Your task to perform on an android device: When is my next meeting? Image 0: 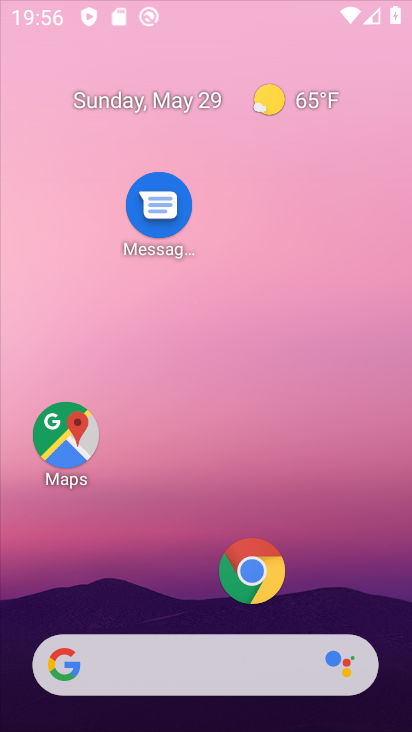
Step 0: click (179, 209)
Your task to perform on an android device: When is my next meeting? Image 1: 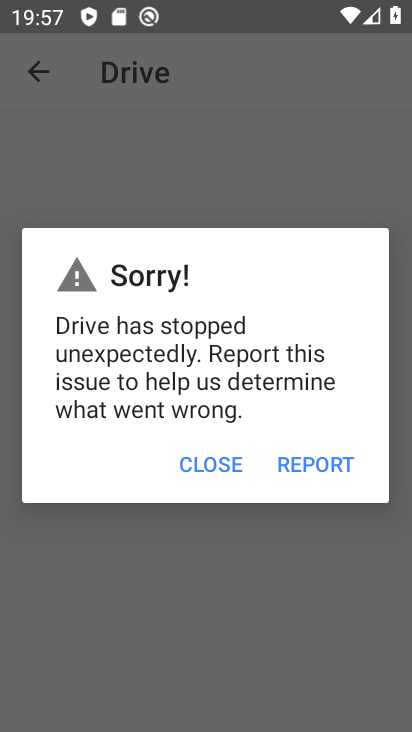
Step 1: drag from (196, 585) to (203, 528)
Your task to perform on an android device: When is my next meeting? Image 2: 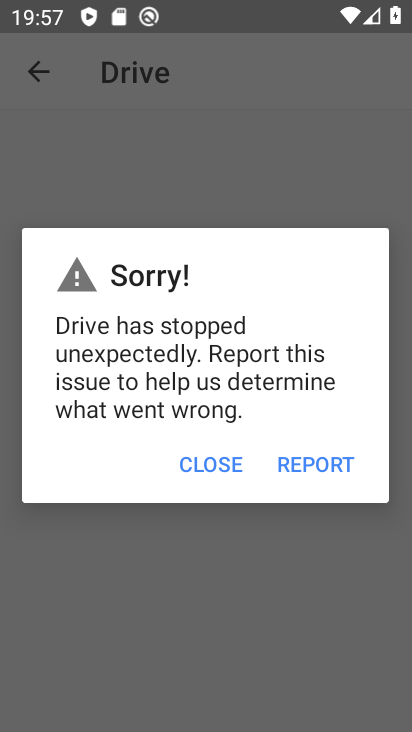
Step 2: press home button
Your task to perform on an android device: When is my next meeting? Image 3: 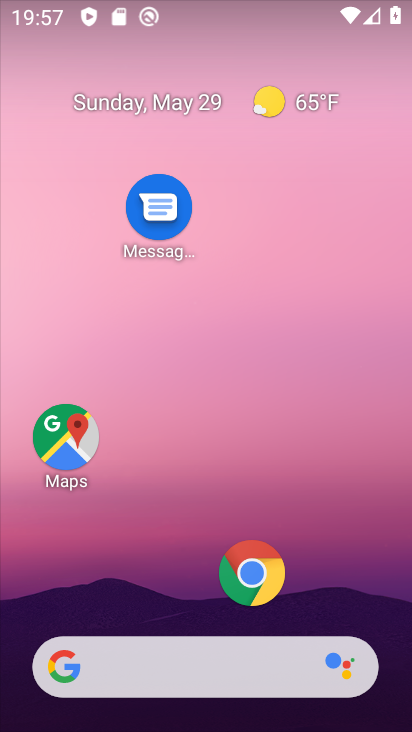
Step 3: drag from (195, 585) to (218, 241)
Your task to perform on an android device: When is my next meeting? Image 4: 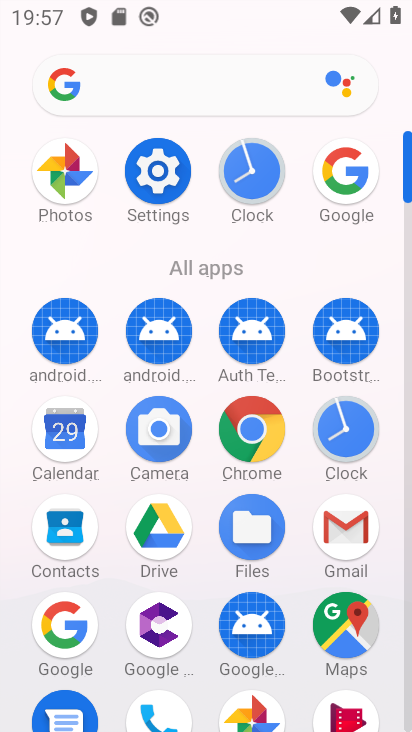
Step 4: click (60, 449)
Your task to perform on an android device: When is my next meeting? Image 5: 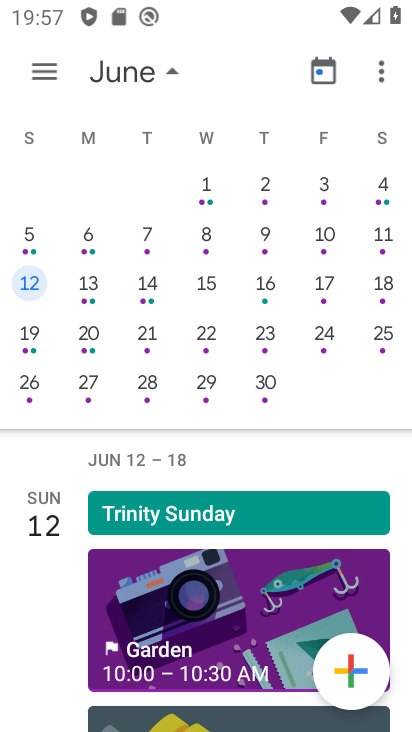
Step 5: drag from (37, 269) to (353, 298)
Your task to perform on an android device: When is my next meeting? Image 6: 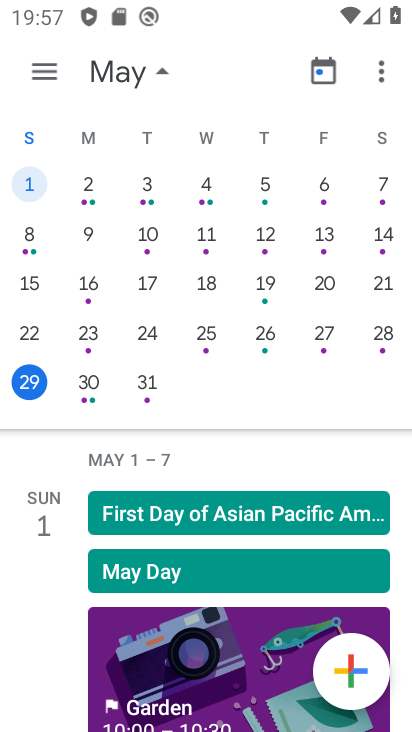
Step 6: drag from (227, 502) to (243, 269)
Your task to perform on an android device: When is my next meeting? Image 7: 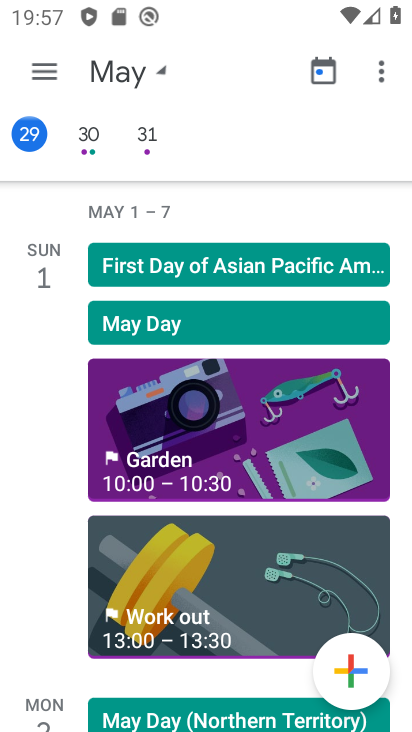
Step 7: drag from (218, 560) to (239, 363)
Your task to perform on an android device: When is my next meeting? Image 8: 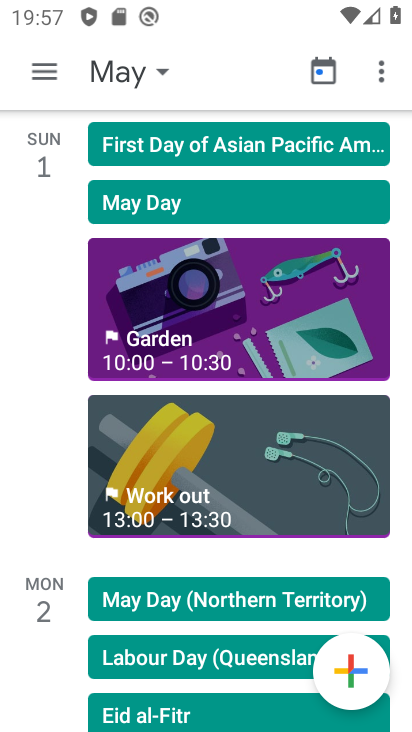
Step 8: drag from (226, 621) to (246, 378)
Your task to perform on an android device: When is my next meeting? Image 9: 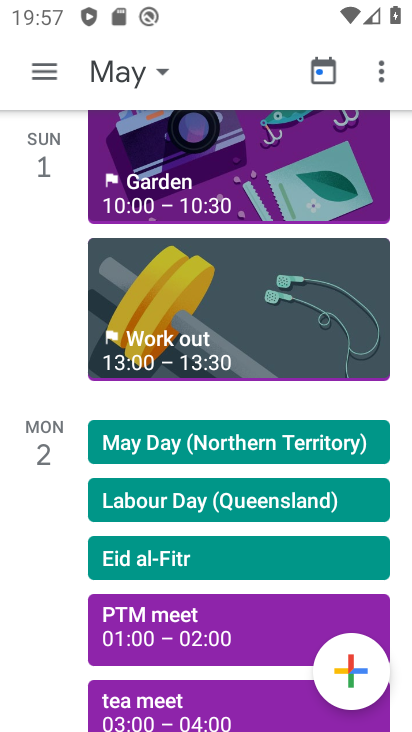
Step 9: drag from (182, 599) to (218, 370)
Your task to perform on an android device: When is my next meeting? Image 10: 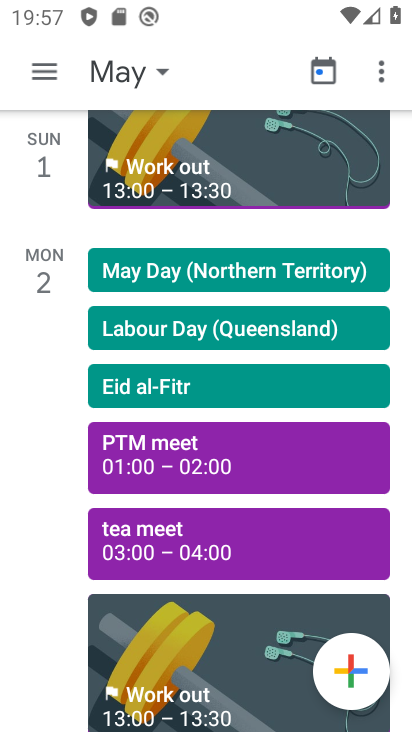
Step 10: drag from (175, 589) to (185, 520)
Your task to perform on an android device: When is my next meeting? Image 11: 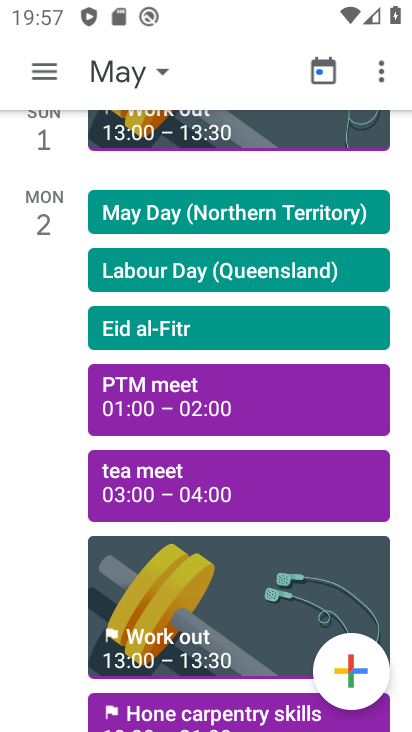
Step 11: click (180, 418)
Your task to perform on an android device: When is my next meeting? Image 12: 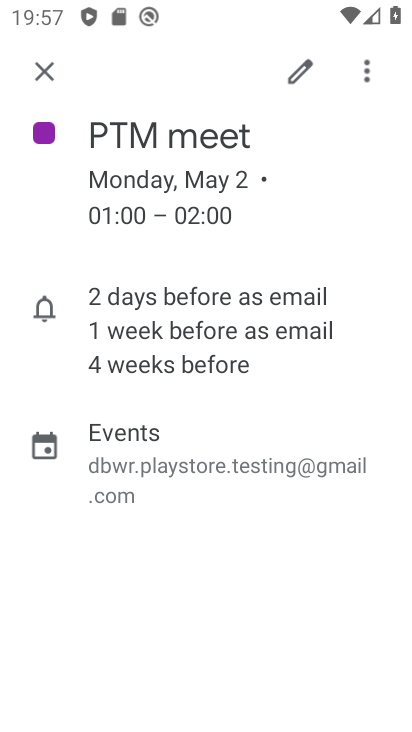
Step 12: task complete